Your task to perform on an android device: Go to Maps Image 0: 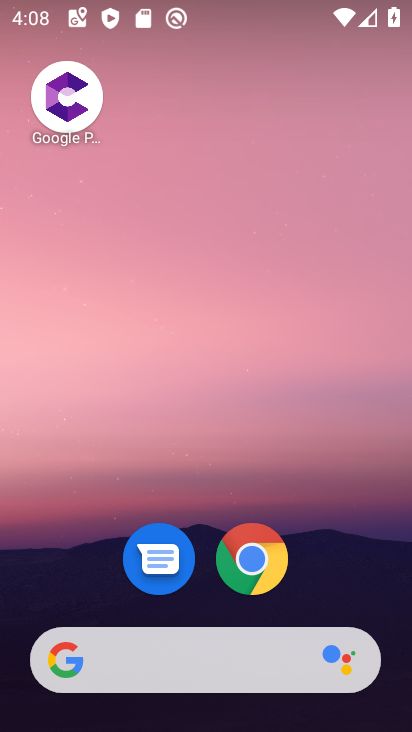
Step 0: drag from (200, 292) to (226, 2)
Your task to perform on an android device: Go to Maps Image 1: 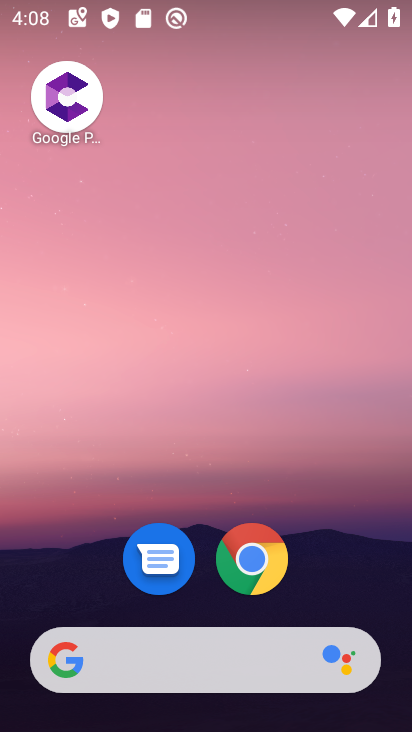
Step 1: drag from (95, 551) to (97, 387)
Your task to perform on an android device: Go to Maps Image 2: 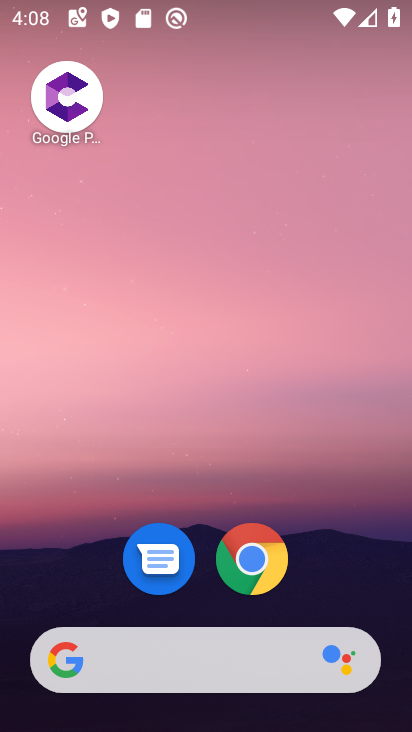
Step 2: click (338, 636)
Your task to perform on an android device: Go to Maps Image 3: 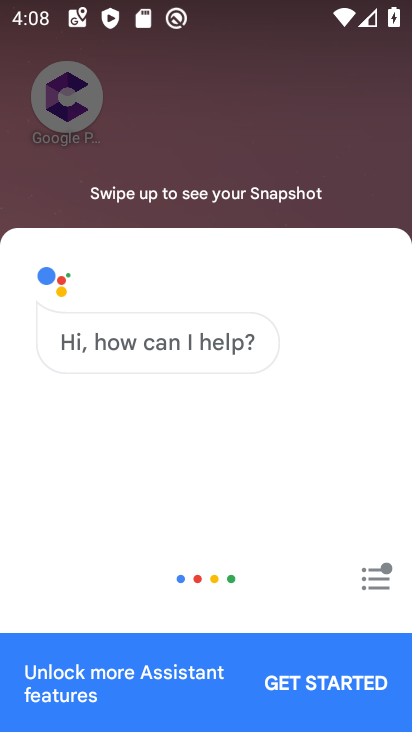
Step 3: press back button
Your task to perform on an android device: Go to Maps Image 4: 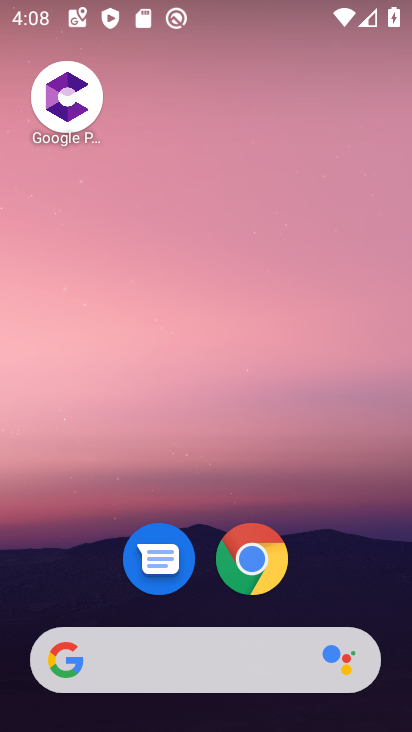
Step 4: drag from (85, 600) to (149, 32)
Your task to perform on an android device: Go to Maps Image 5: 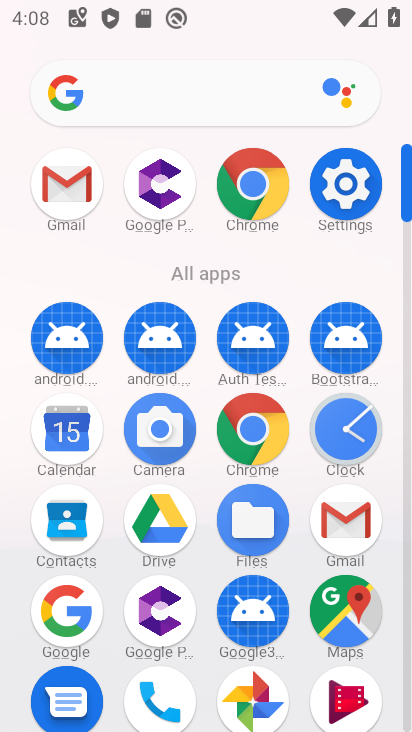
Step 5: click (336, 596)
Your task to perform on an android device: Go to Maps Image 6: 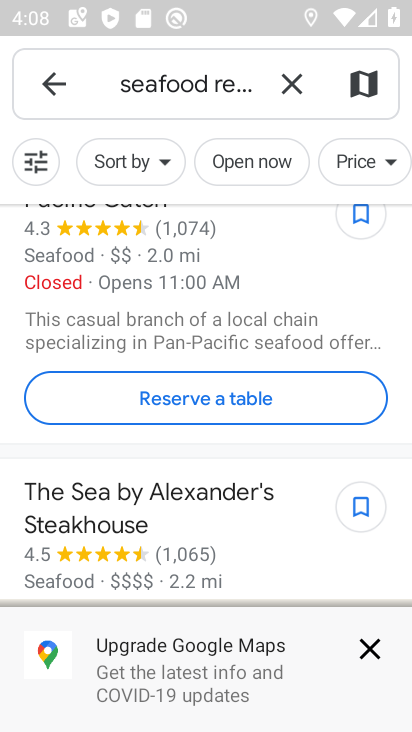
Step 6: task complete